Your task to perform on an android device: choose inbox layout in the gmail app Image 0: 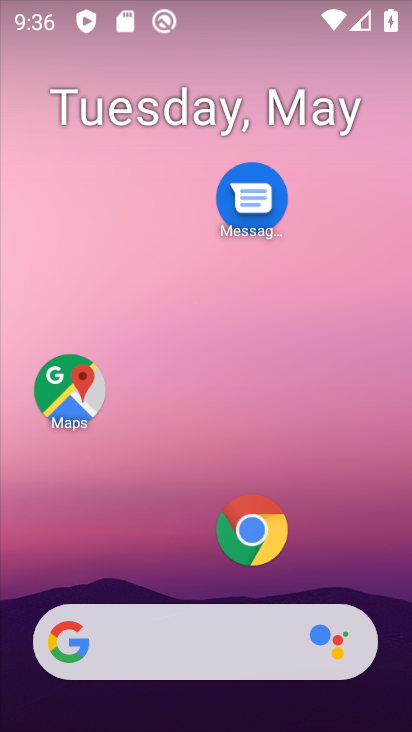
Step 0: drag from (198, 569) to (168, 252)
Your task to perform on an android device: choose inbox layout in the gmail app Image 1: 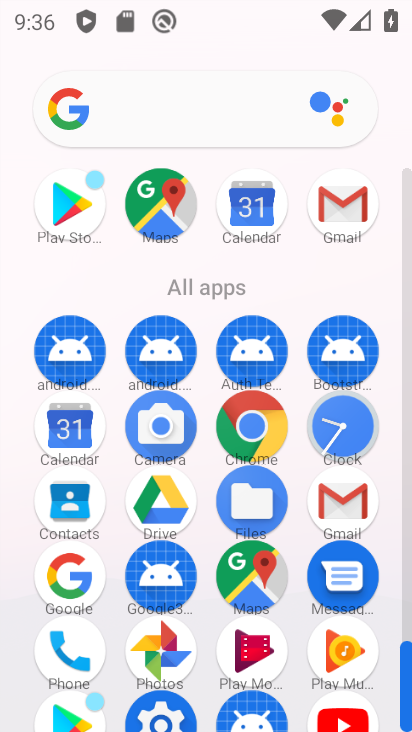
Step 1: click (345, 222)
Your task to perform on an android device: choose inbox layout in the gmail app Image 2: 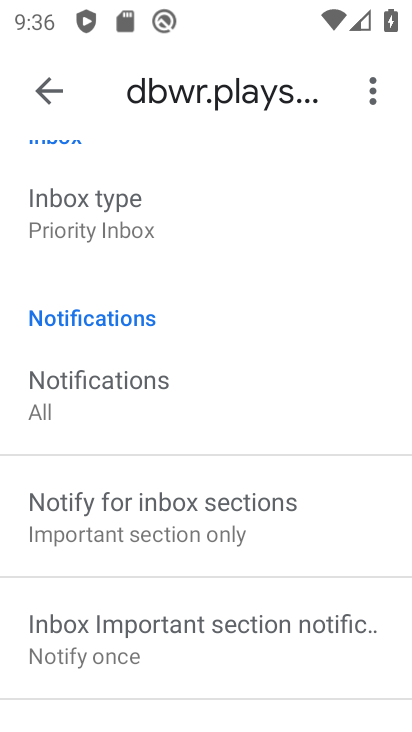
Step 2: click (112, 239)
Your task to perform on an android device: choose inbox layout in the gmail app Image 3: 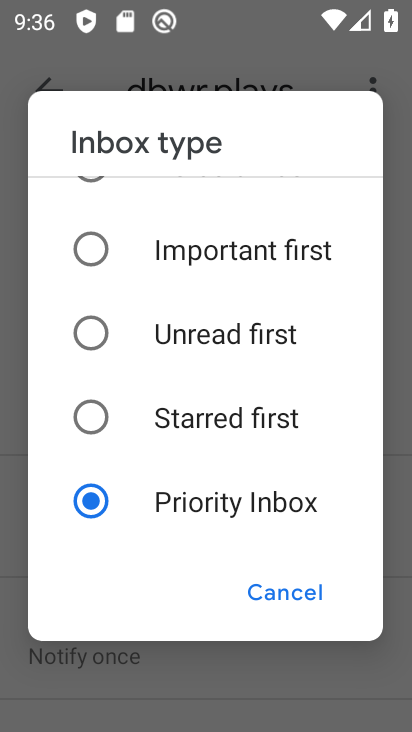
Step 3: click (95, 419)
Your task to perform on an android device: choose inbox layout in the gmail app Image 4: 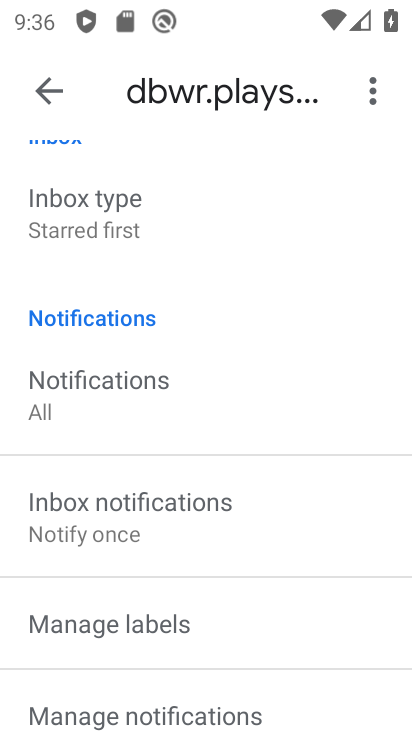
Step 4: task complete